Your task to perform on an android device: turn on airplane mode Image 0: 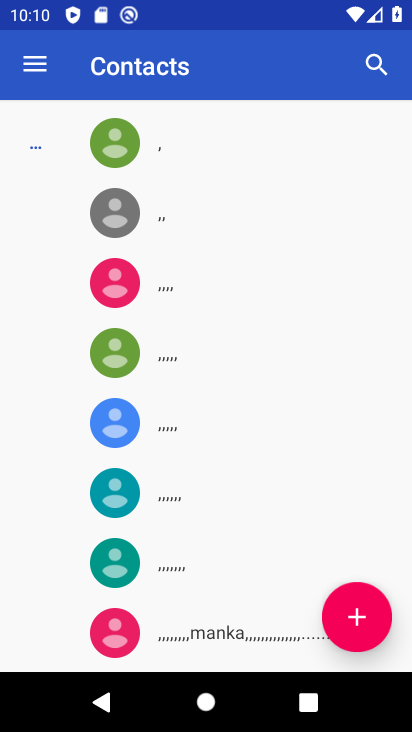
Step 0: press back button
Your task to perform on an android device: turn on airplane mode Image 1: 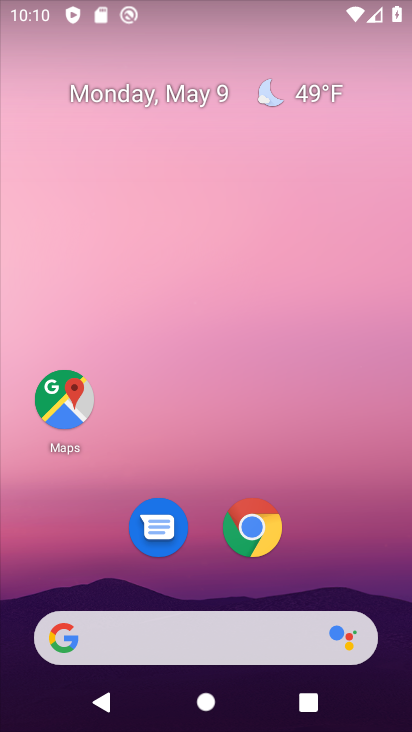
Step 1: drag from (302, 560) to (228, 53)
Your task to perform on an android device: turn on airplane mode Image 2: 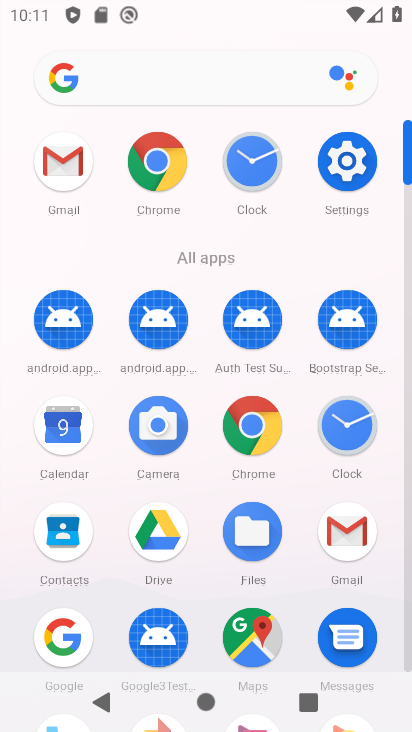
Step 2: click (349, 160)
Your task to perform on an android device: turn on airplane mode Image 3: 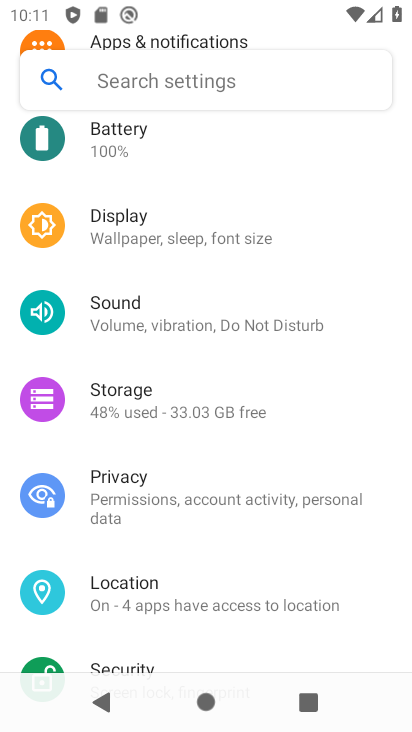
Step 3: drag from (200, 260) to (220, 405)
Your task to perform on an android device: turn on airplane mode Image 4: 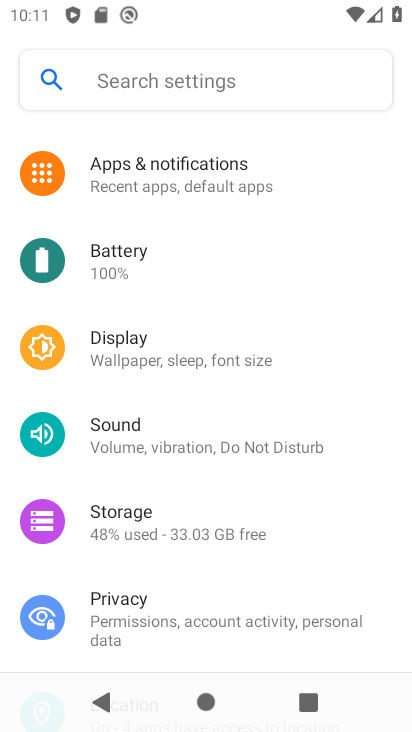
Step 4: drag from (278, 337) to (314, 429)
Your task to perform on an android device: turn on airplane mode Image 5: 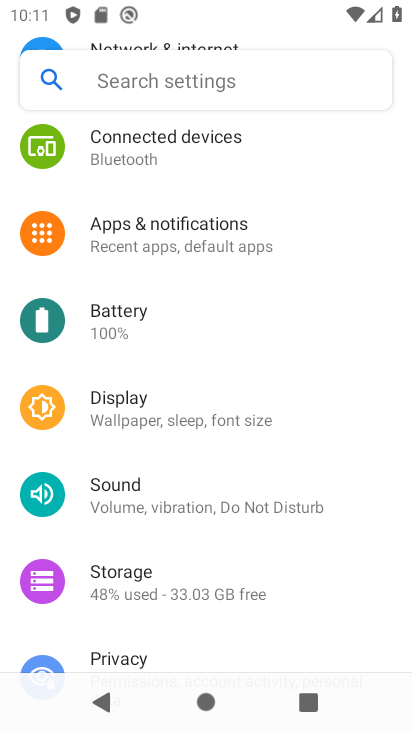
Step 5: drag from (207, 309) to (205, 396)
Your task to perform on an android device: turn on airplane mode Image 6: 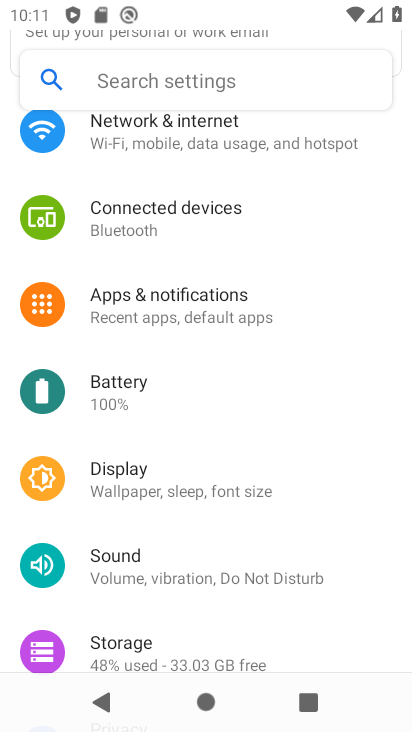
Step 6: drag from (204, 234) to (215, 348)
Your task to perform on an android device: turn on airplane mode Image 7: 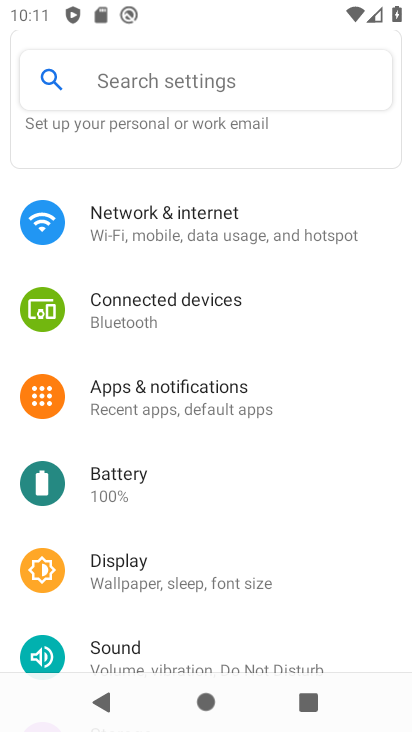
Step 7: click (195, 235)
Your task to perform on an android device: turn on airplane mode Image 8: 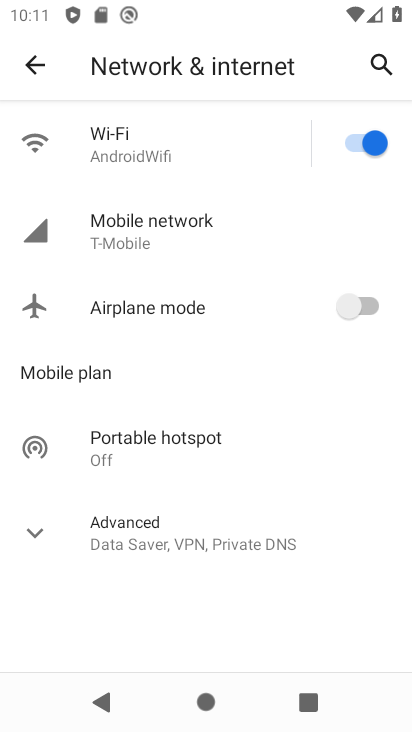
Step 8: click (347, 300)
Your task to perform on an android device: turn on airplane mode Image 9: 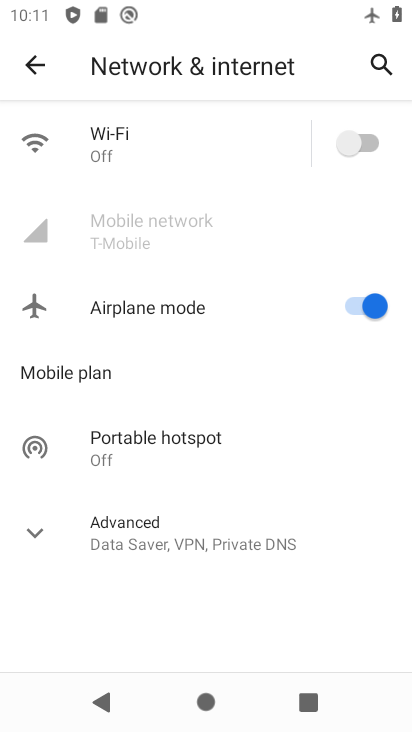
Step 9: task complete